Your task to perform on an android device: allow notifications from all sites in the chrome app Image 0: 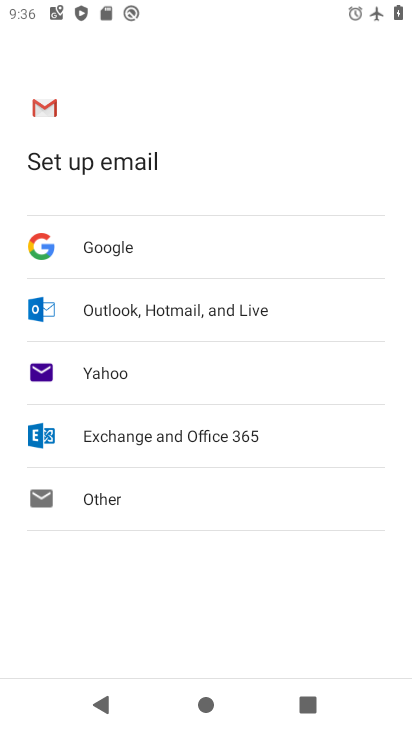
Step 0: press home button
Your task to perform on an android device: allow notifications from all sites in the chrome app Image 1: 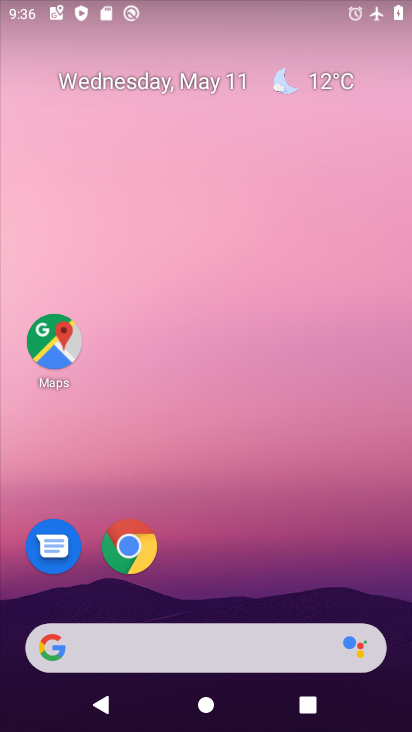
Step 1: click (129, 547)
Your task to perform on an android device: allow notifications from all sites in the chrome app Image 2: 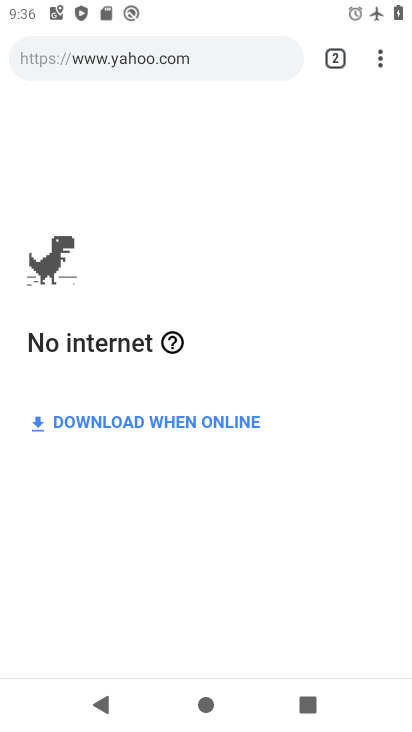
Step 2: click (379, 62)
Your task to perform on an android device: allow notifications from all sites in the chrome app Image 3: 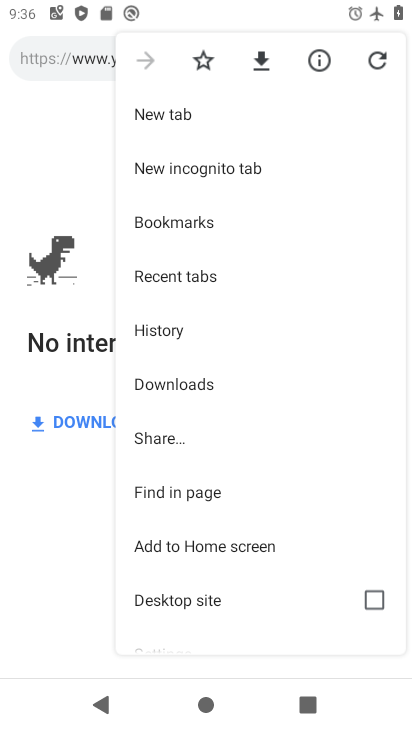
Step 3: drag from (274, 472) to (244, 188)
Your task to perform on an android device: allow notifications from all sites in the chrome app Image 4: 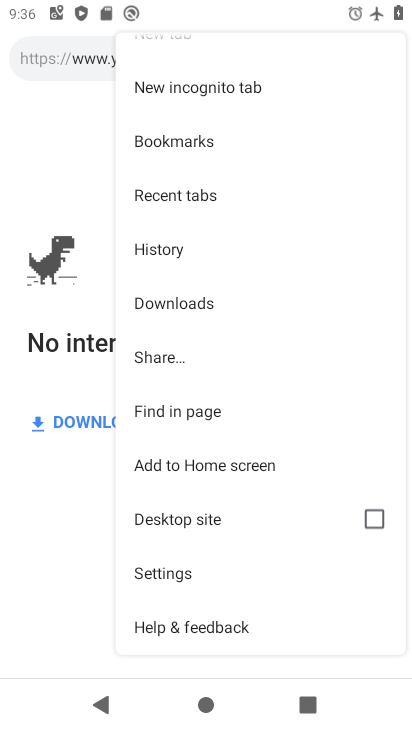
Step 4: click (162, 566)
Your task to perform on an android device: allow notifications from all sites in the chrome app Image 5: 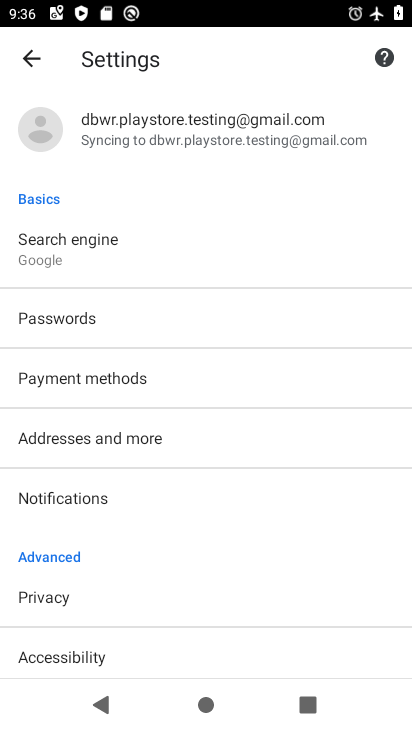
Step 5: drag from (164, 594) to (213, 263)
Your task to perform on an android device: allow notifications from all sites in the chrome app Image 6: 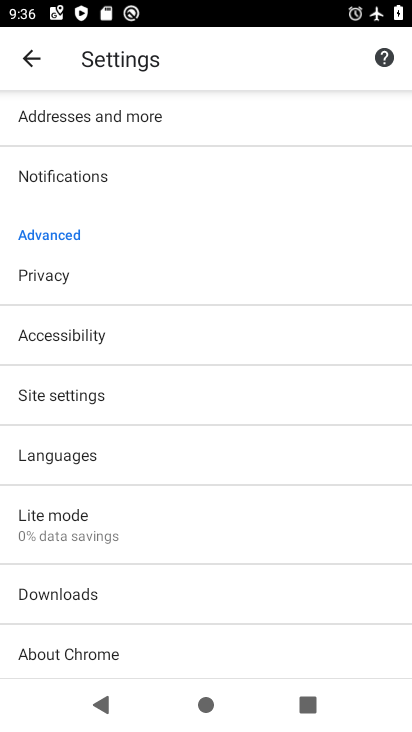
Step 6: click (45, 384)
Your task to perform on an android device: allow notifications from all sites in the chrome app Image 7: 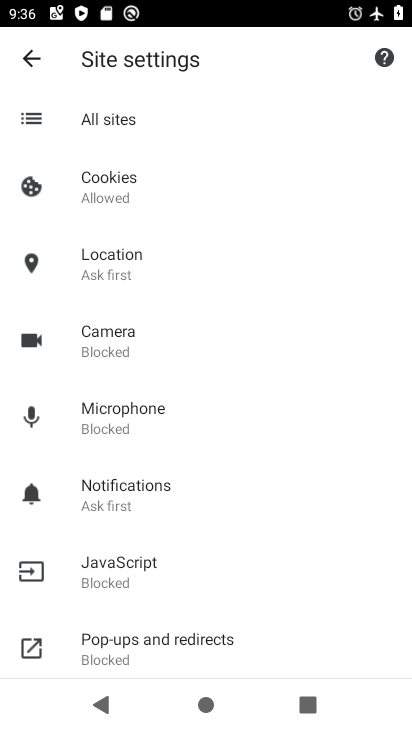
Step 7: click (100, 492)
Your task to perform on an android device: allow notifications from all sites in the chrome app Image 8: 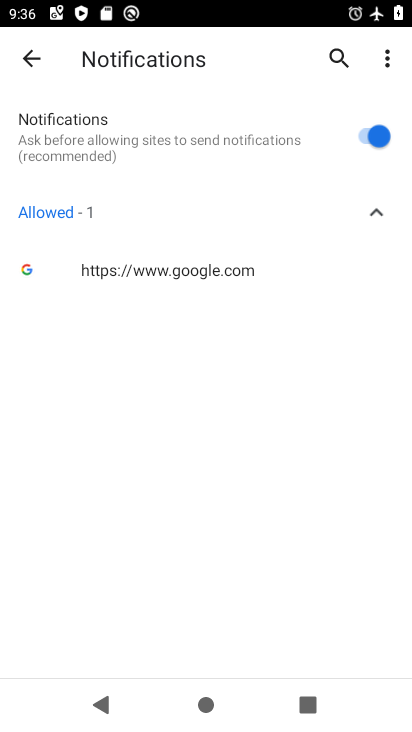
Step 8: task complete